Your task to perform on an android device: Go to accessibility settings Image 0: 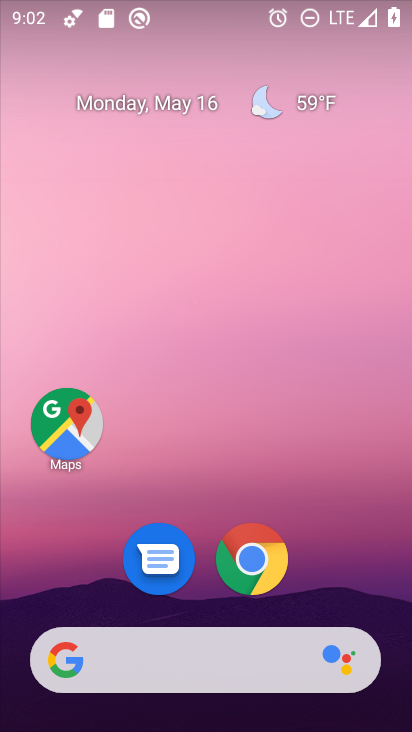
Step 0: drag from (353, 580) to (346, 109)
Your task to perform on an android device: Go to accessibility settings Image 1: 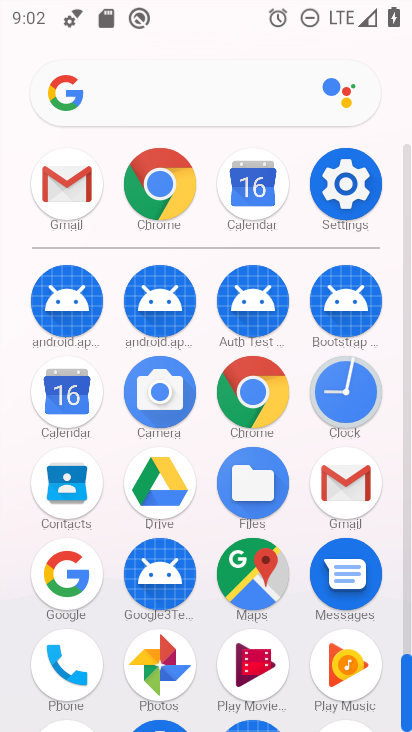
Step 1: click (359, 201)
Your task to perform on an android device: Go to accessibility settings Image 2: 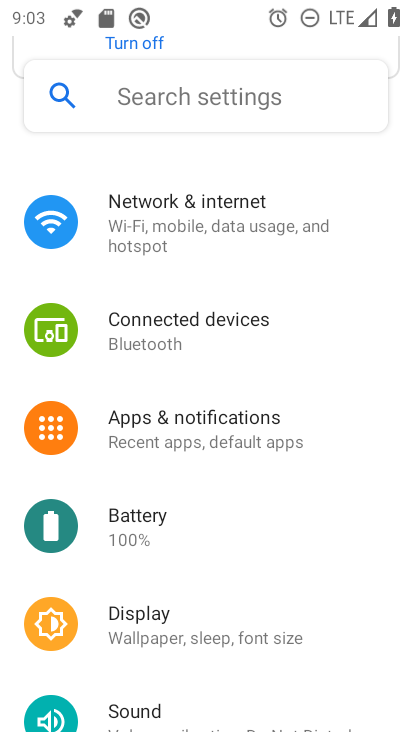
Step 2: drag from (310, 598) to (324, 170)
Your task to perform on an android device: Go to accessibility settings Image 3: 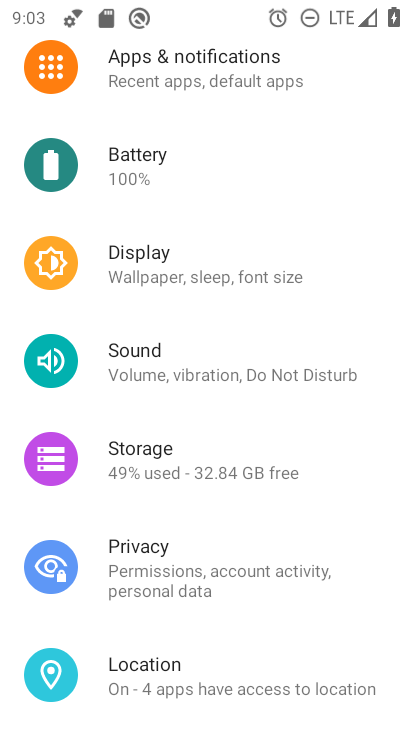
Step 3: drag from (339, 599) to (349, 265)
Your task to perform on an android device: Go to accessibility settings Image 4: 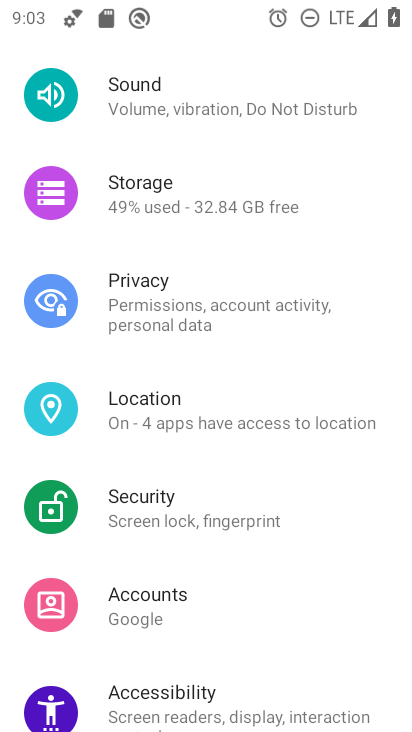
Step 4: drag from (256, 633) to (273, 251)
Your task to perform on an android device: Go to accessibility settings Image 5: 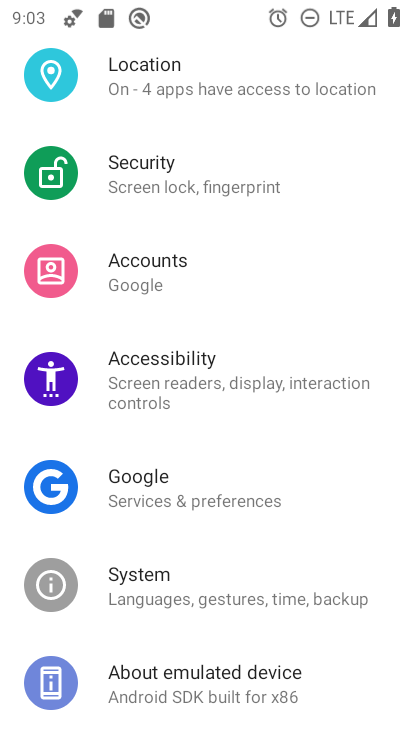
Step 5: click (263, 357)
Your task to perform on an android device: Go to accessibility settings Image 6: 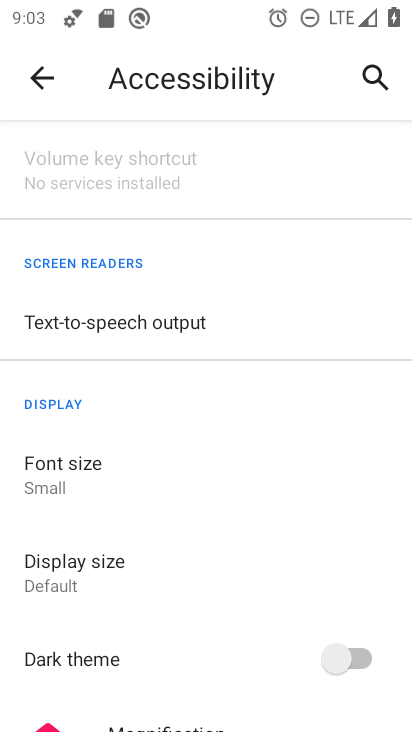
Step 6: task complete